Your task to perform on an android device: turn pop-ups off in chrome Image 0: 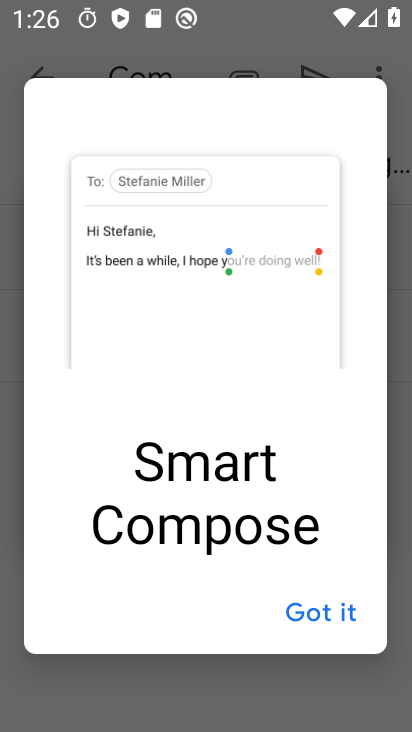
Step 0: press home button
Your task to perform on an android device: turn pop-ups off in chrome Image 1: 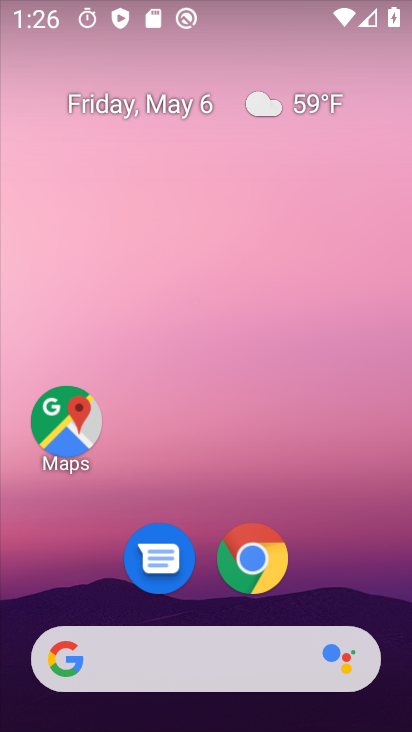
Step 1: click (246, 558)
Your task to perform on an android device: turn pop-ups off in chrome Image 2: 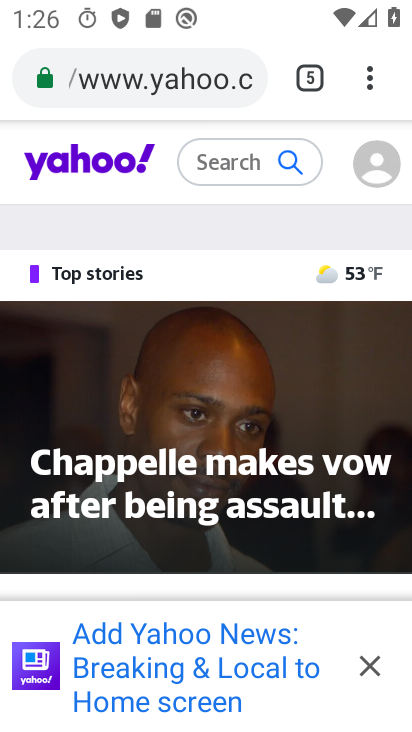
Step 2: drag from (369, 85) to (104, 612)
Your task to perform on an android device: turn pop-ups off in chrome Image 3: 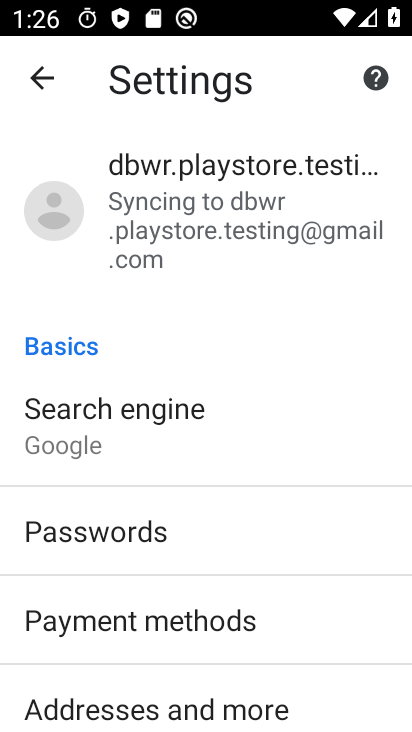
Step 3: drag from (113, 690) to (126, 372)
Your task to perform on an android device: turn pop-ups off in chrome Image 4: 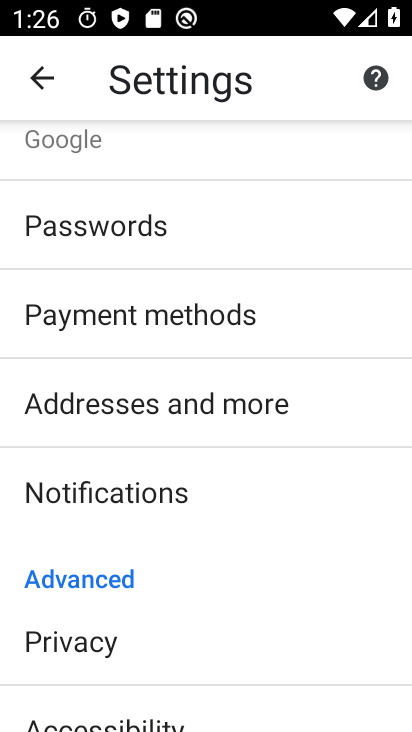
Step 4: drag from (188, 711) to (191, 287)
Your task to perform on an android device: turn pop-ups off in chrome Image 5: 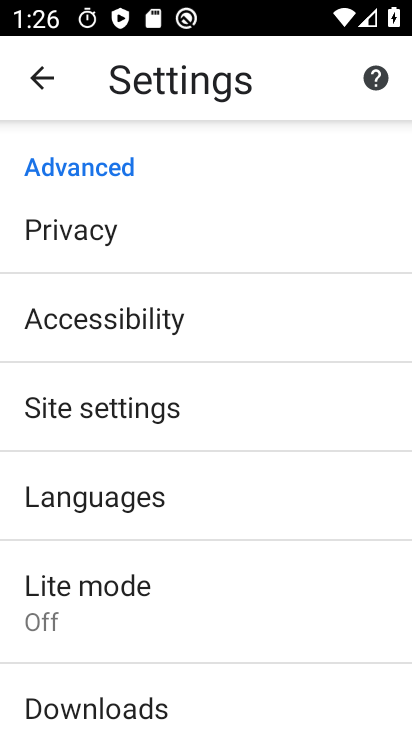
Step 5: click (102, 411)
Your task to perform on an android device: turn pop-ups off in chrome Image 6: 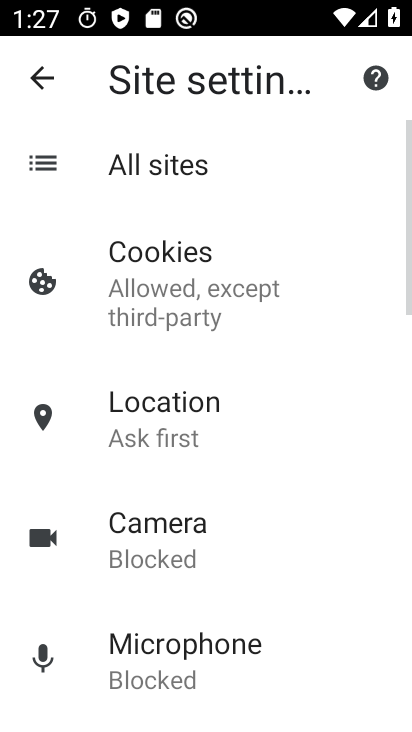
Step 6: drag from (168, 689) to (165, 498)
Your task to perform on an android device: turn pop-ups off in chrome Image 7: 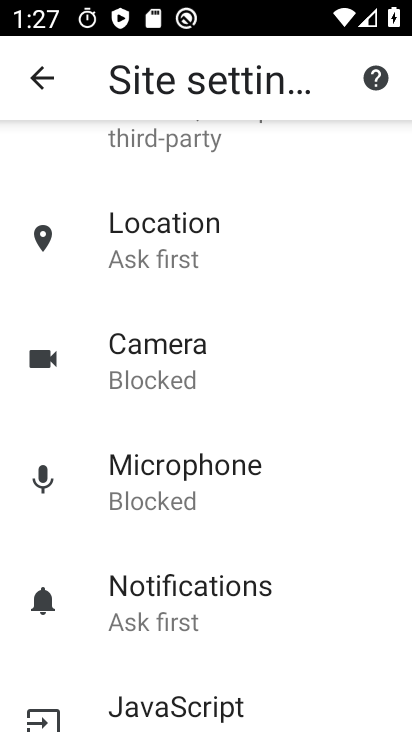
Step 7: drag from (202, 663) to (209, 298)
Your task to perform on an android device: turn pop-ups off in chrome Image 8: 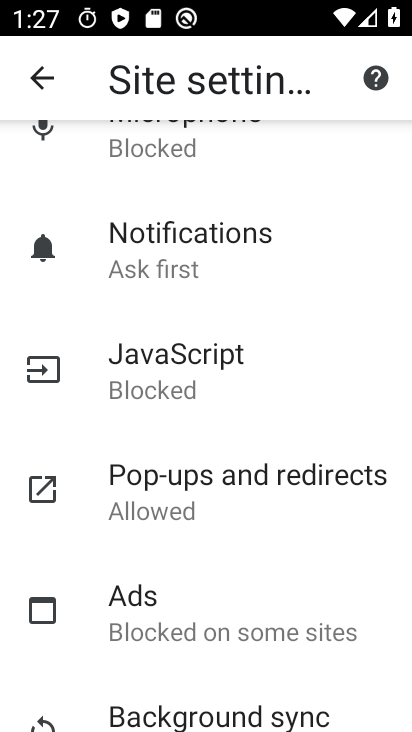
Step 8: click (180, 482)
Your task to perform on an android device: turn pop-ups off in chrome Image 9: 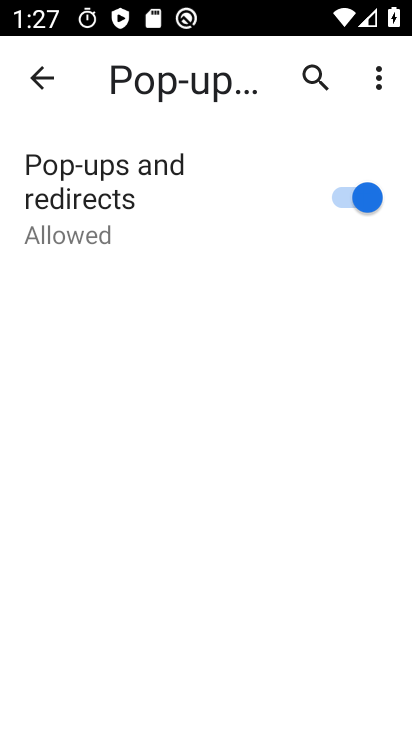
Step 9: click (344, 192)
Your task to perform on an android device: turn pop-ups off in chrome Image 10: 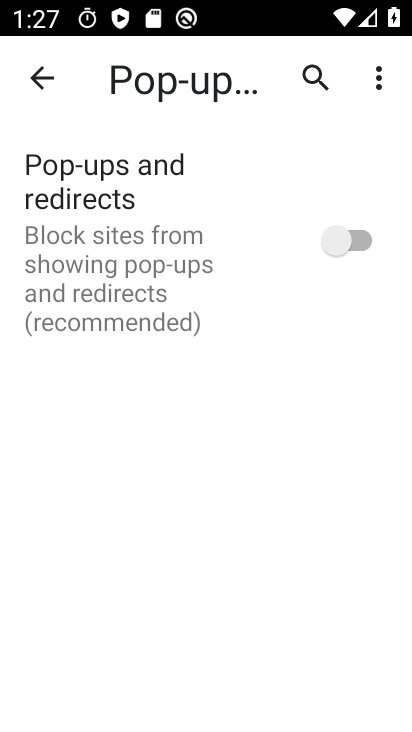
Step 10: task complete